Your task to perform on an android device: Go to battery settings Image 0: 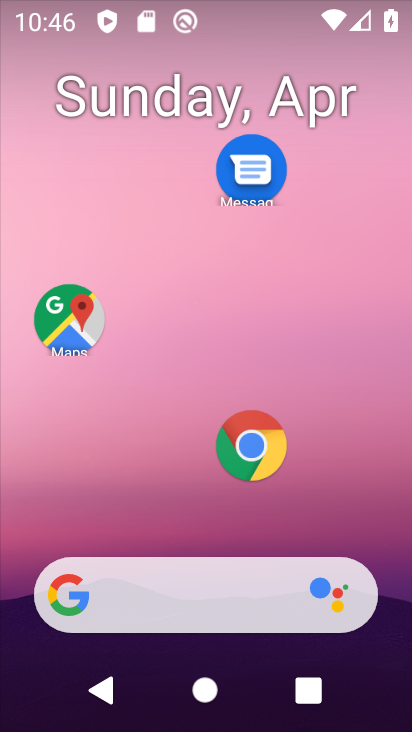
Step 0: press home button
Your task to perform on an android device: Go to battery settings Image 1: 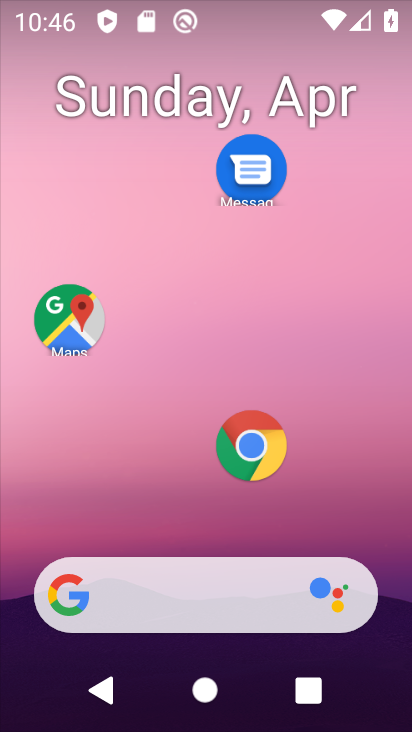
Step 1: drag from (169, 589) to (308, 67)
Your task to perform on an android device: Go to battery settings Image 2: 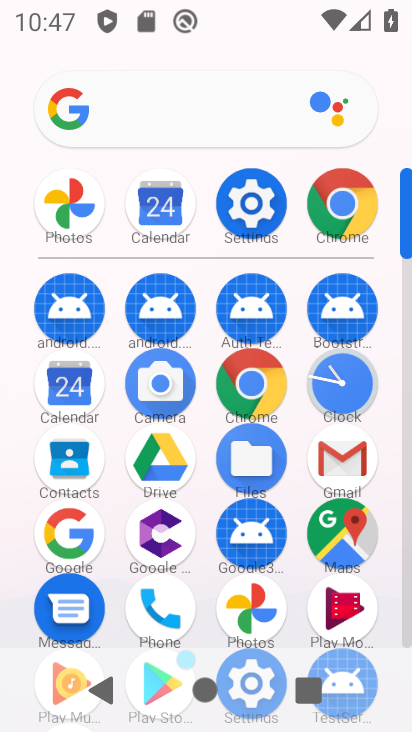
Step 2: click (258, 219)
Your task to perform on an android device: Go to battery settings Image 3: 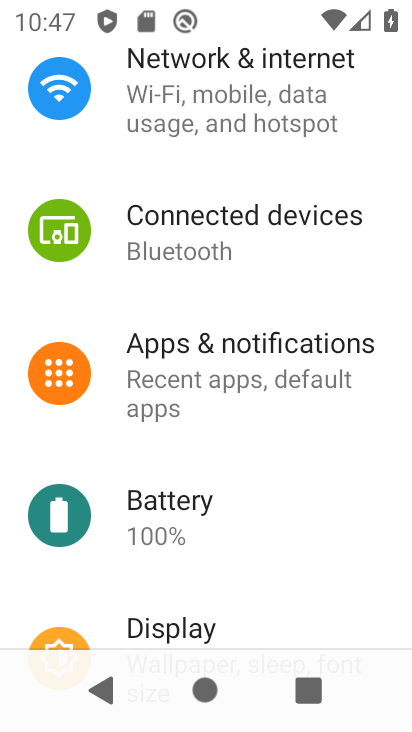
Step 3: click (180, 509)
Your task to perform on an android device: Go to battery settings Image 4: 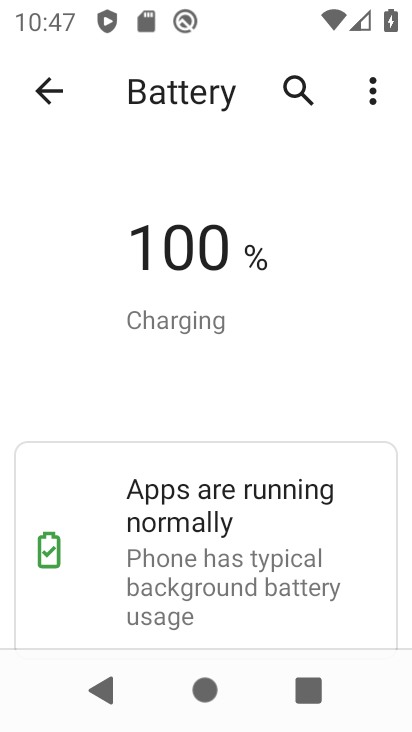
Step 4: task complete